Your task to perform on an android device: uninstall "Nova Launcher" Image 0: 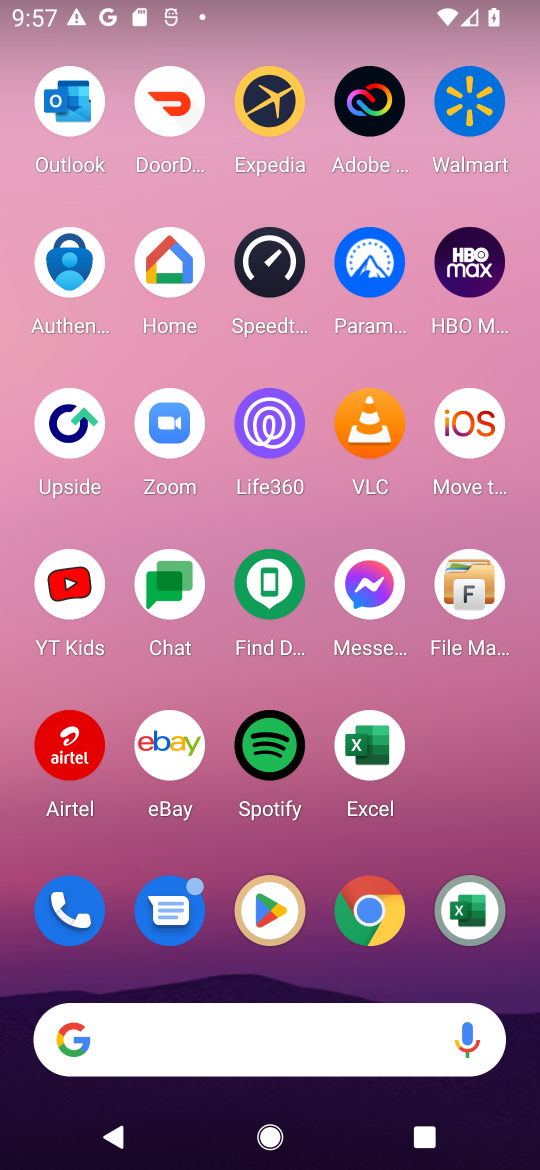
Step 0: click (292, 907)
Your task to perform on an android device: uninstall "Nova Launcher" Image 1: 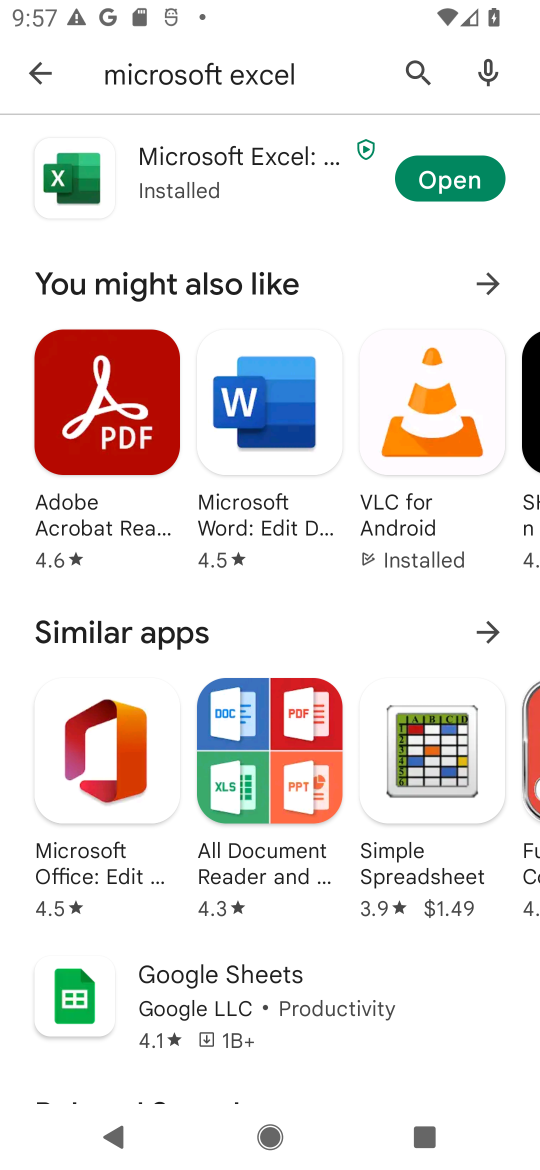
Step 1: click (413, 77)
Your task to perform on an android device: uninstall "Nova Launcher" Image 2: 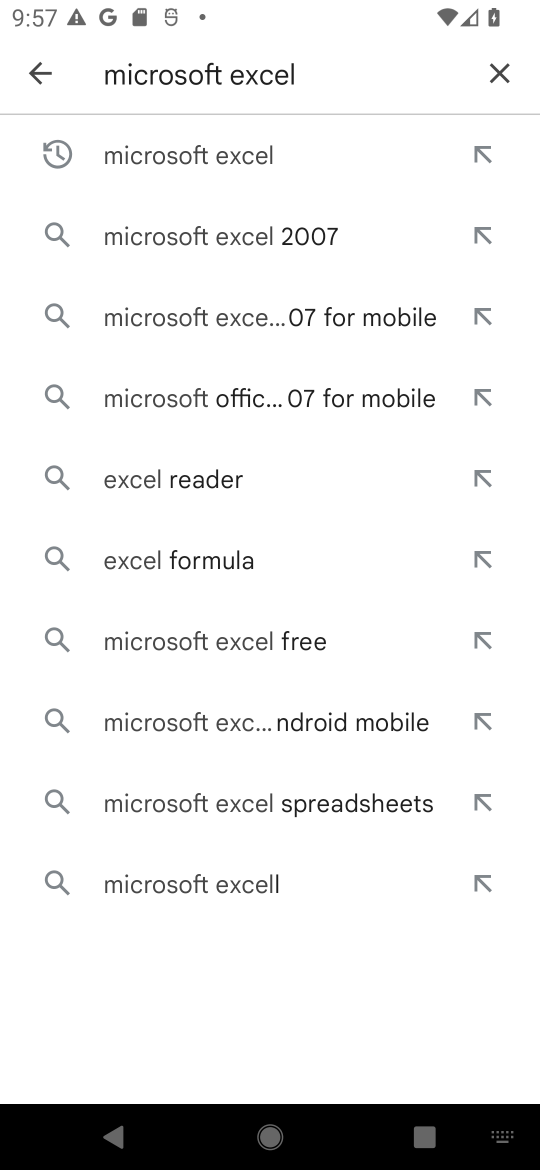
Step 2: click (488, 59)
Your task to perform on an android device: uninstall "Nova Launcher" Image 3: 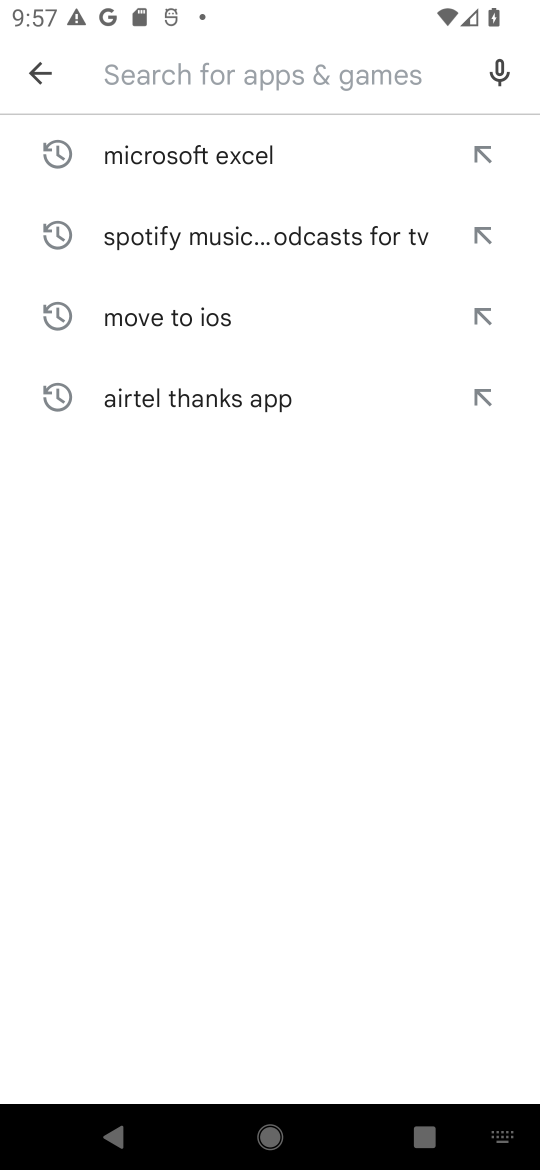
Step 3: type "Nova Launcher"
Your task to perform on an android device: uninstall "Nova Launcher" Image 4: 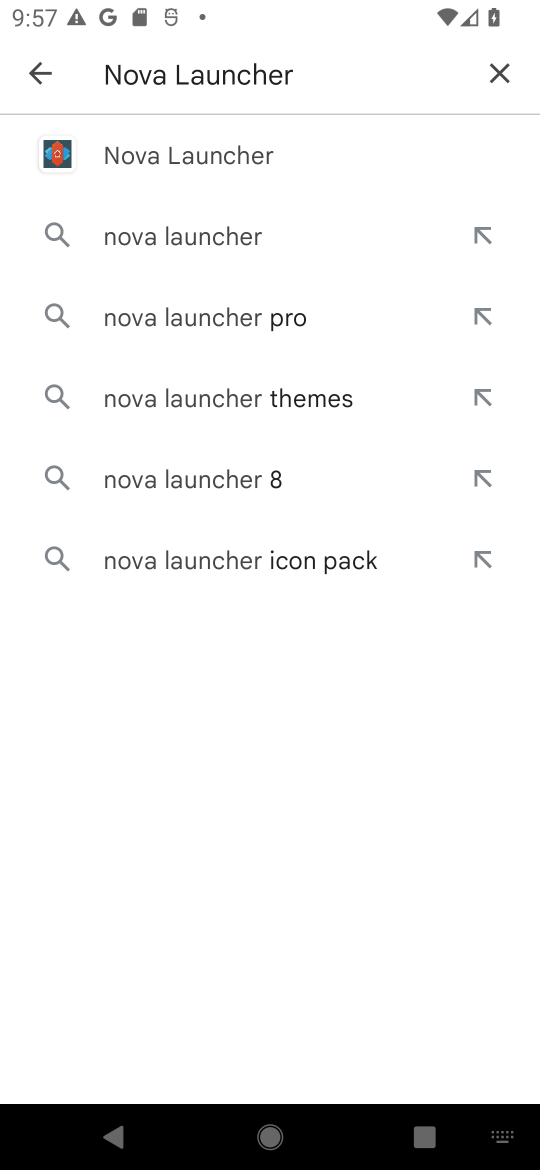
Step 4: click (250, 155)
Your task to perform on an android device: uninstall "Nova Launcher" Image 5: 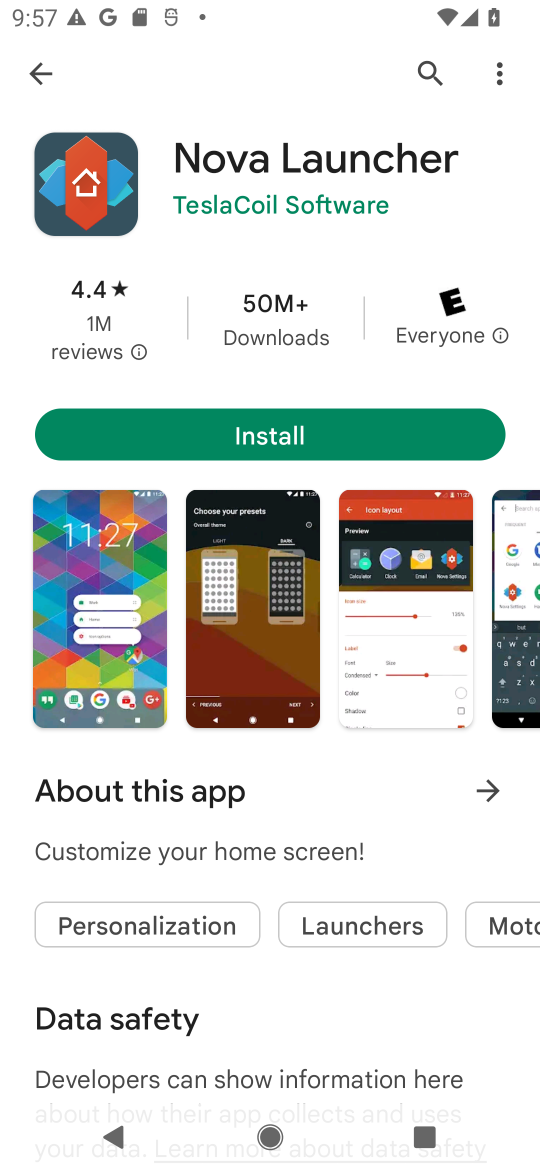
Step 5: task complete